Your task to perform on an android device: open app "Mercado Libre" (install if not already installed), go to login, and select forgot password Image 0: 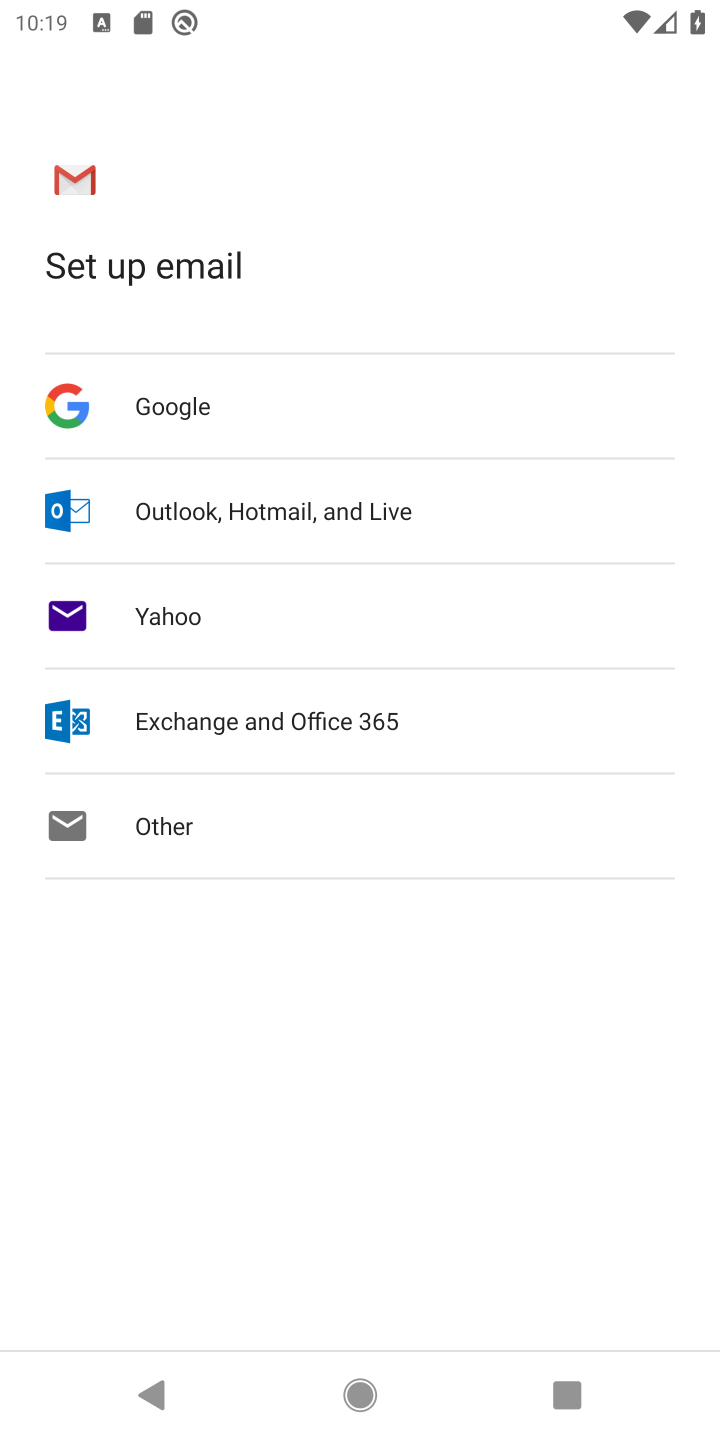
Step 0: press home button
Your task to perform on an android device: open app "Mercado Libre" (install if not already installed), go to login, and select forgot password Image 1: 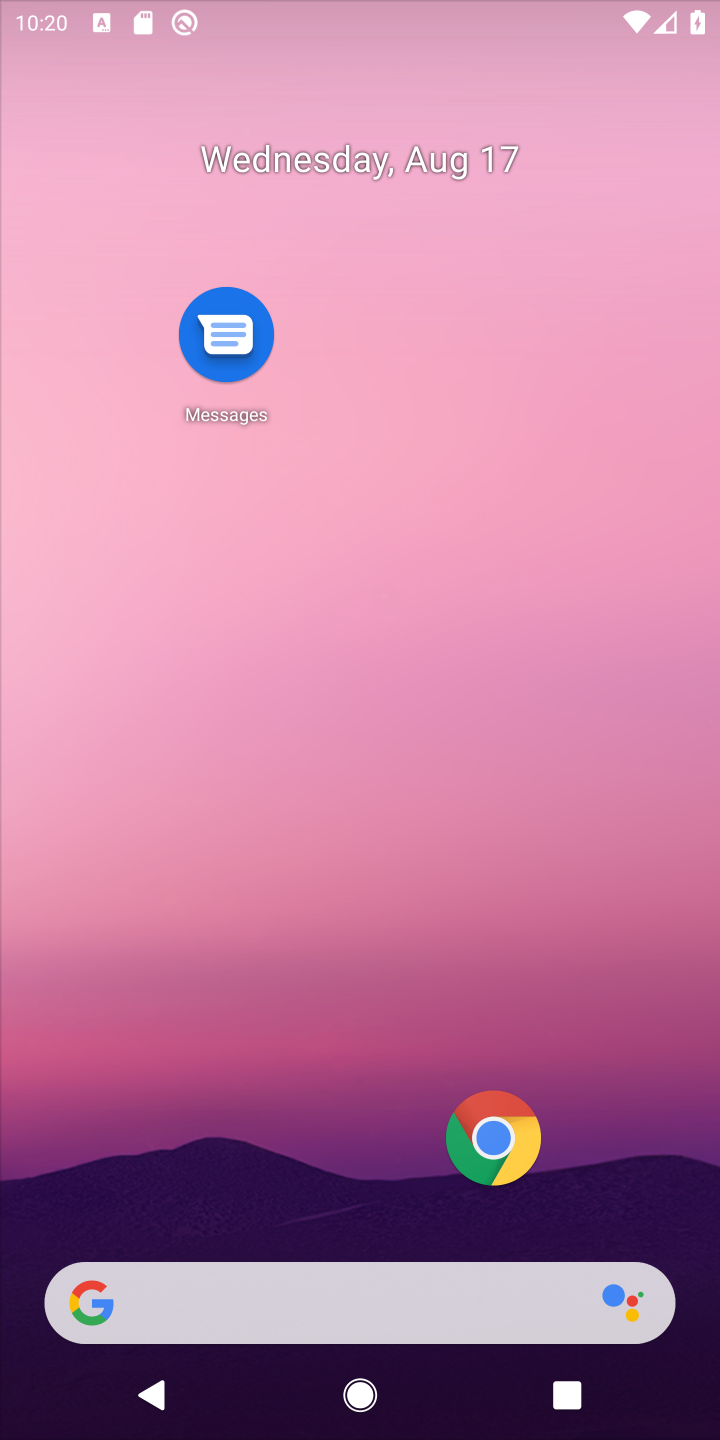
Step 1: drag from (284, 1275) to (300, 104)
Your task to perform on an android device: open app "Mercado Libre" (install if not already installed), go to login, and select forgot password Image 2: 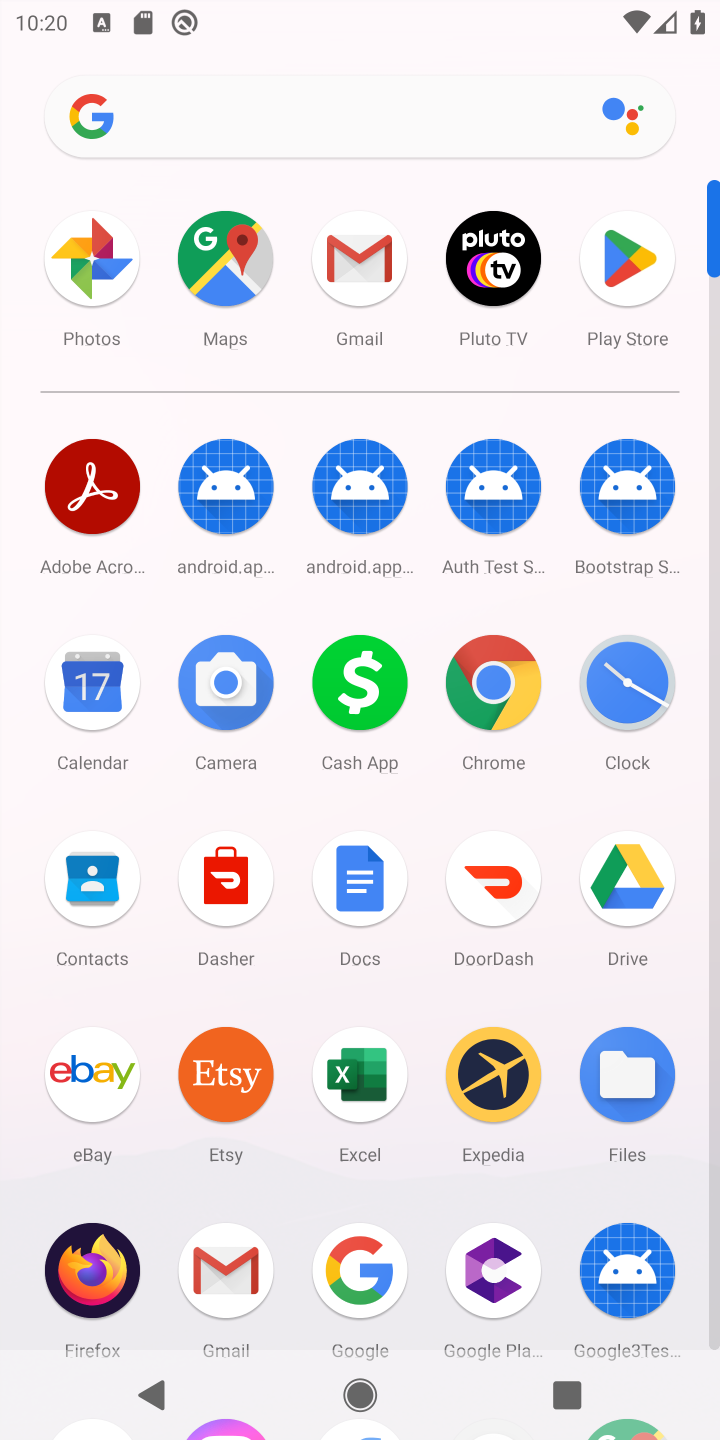
Step 2: click (607, 257)
Your task to perform on an android device: open app "Mercado Libre" (install if not already installed), go to login, and select forgot password Image 3: 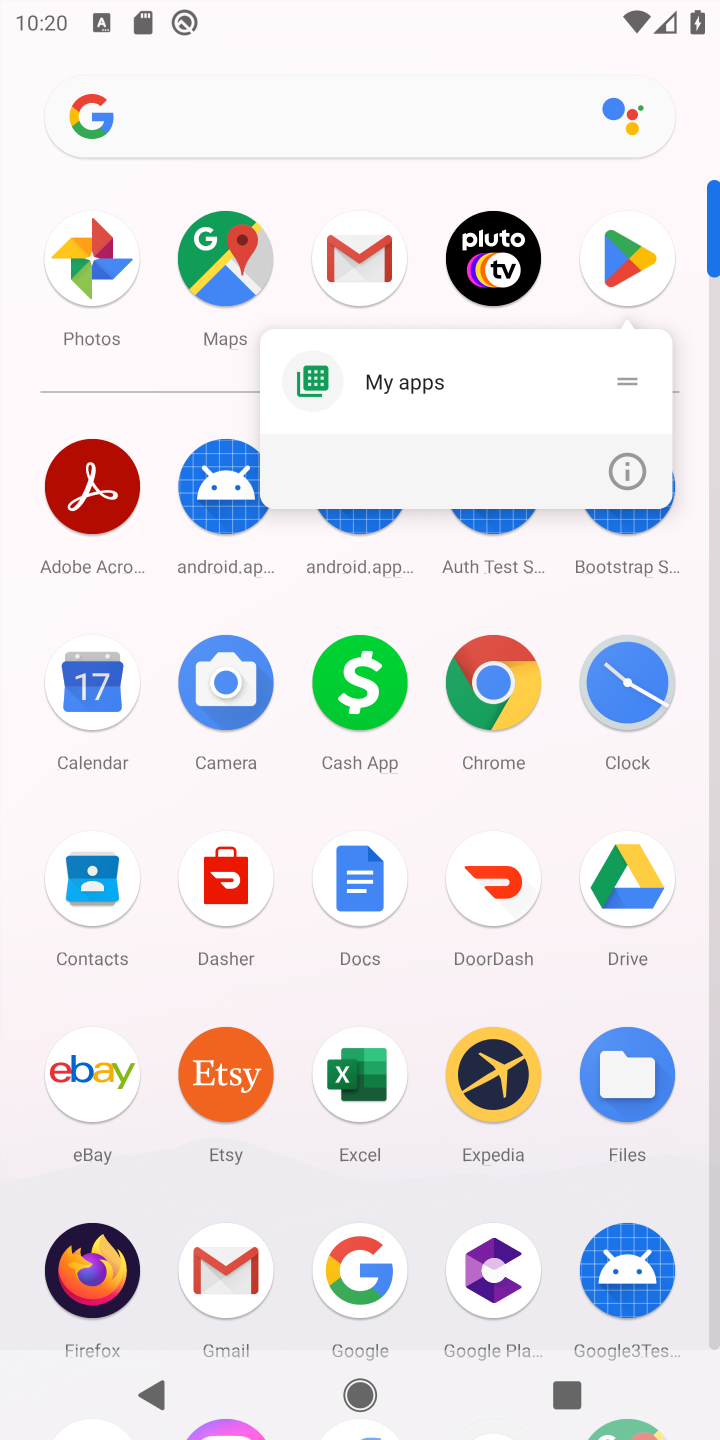
Step 3: click (636, 252)
Your task to perform on an android device: open app "Mercado Libre" (install if not already installed), go to login, and select forgot password Image 4: 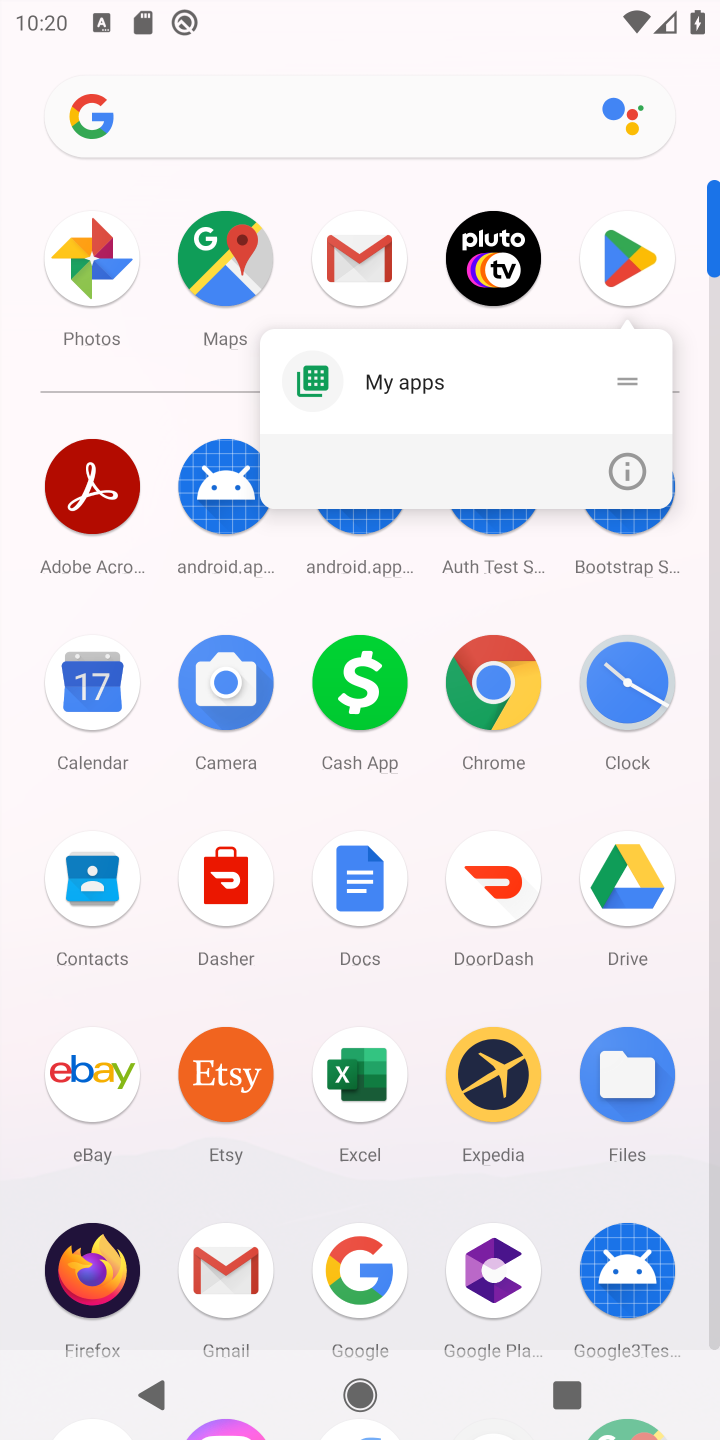
Step 4: click (636, 252)
Your task to perform on an android device: open app "Mercado Libre" (install if not already installed), go to login, and select forgot password Image 5: 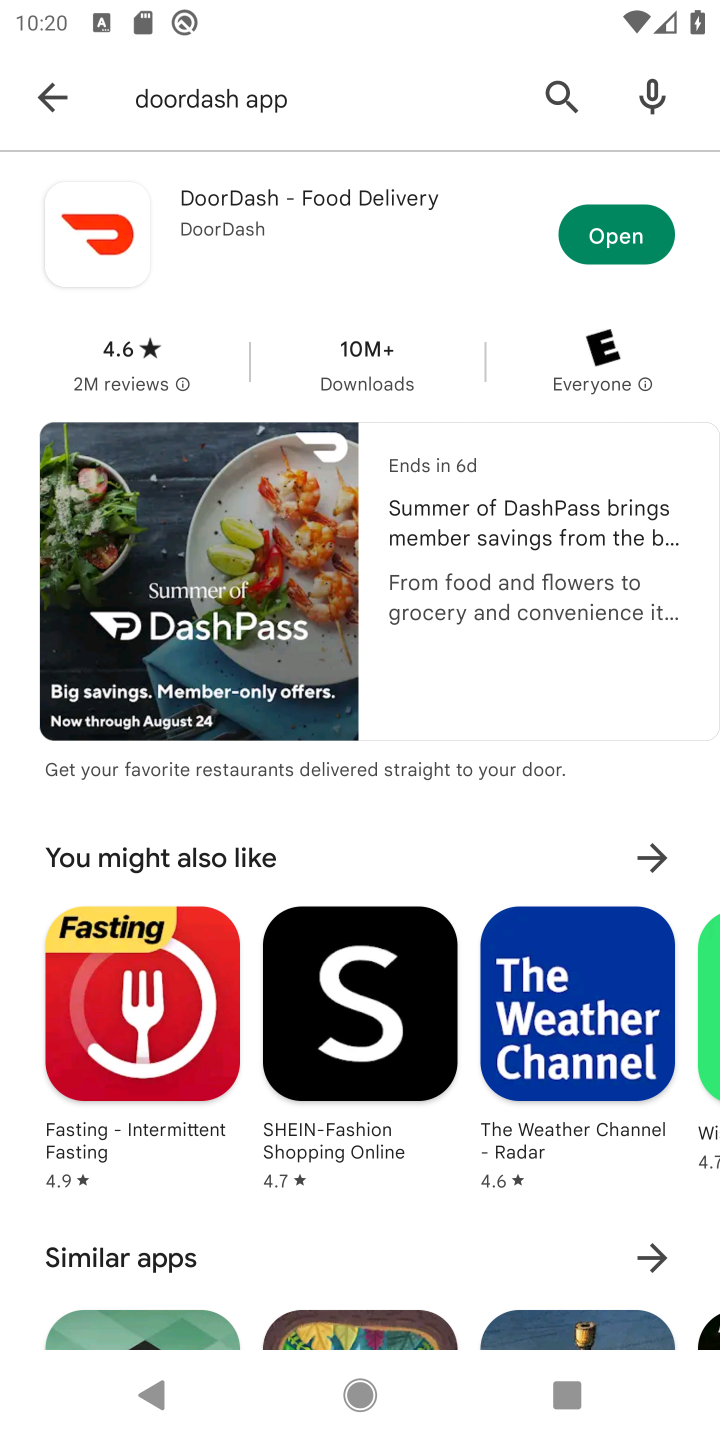
Step 5: click (30, 93)
Your task to perform on an android device: open app "Mercado Libre" (install if not already installed), go to login, and select forgot password Image 6: 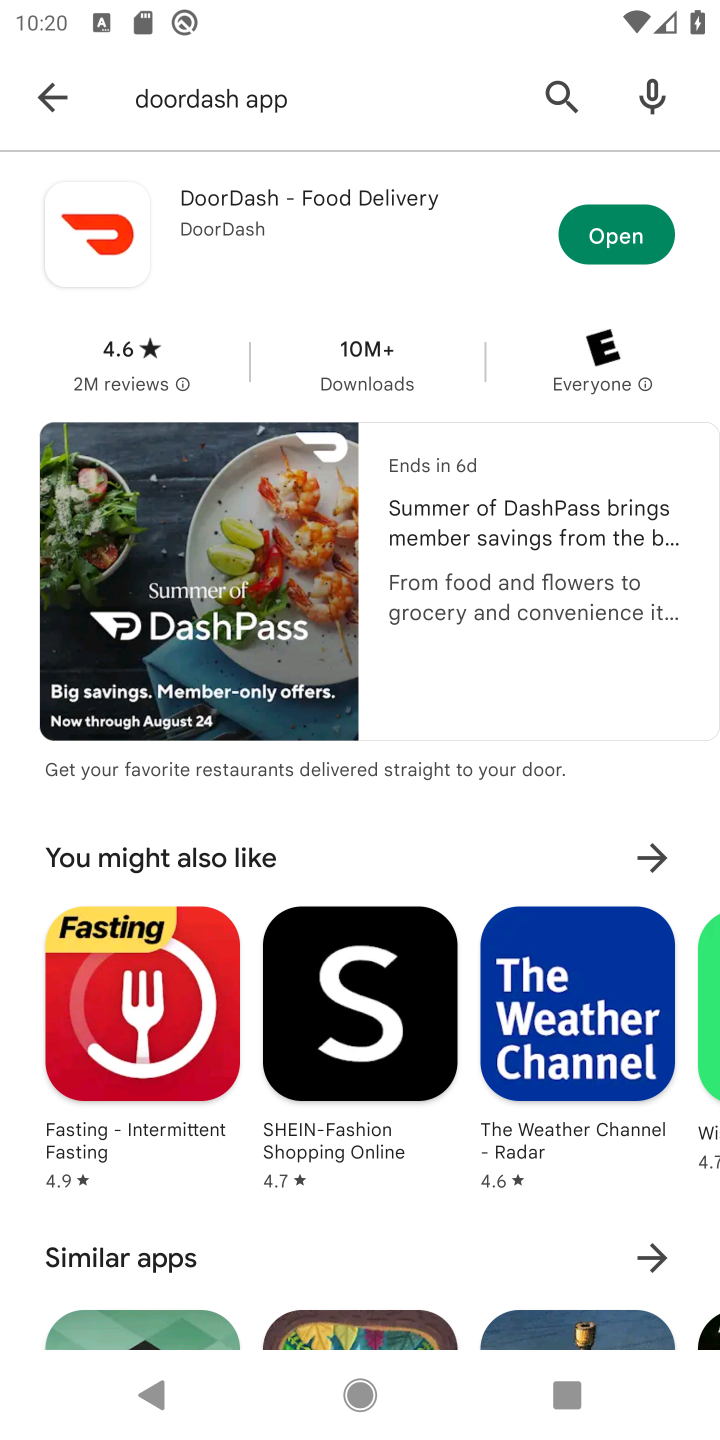
Step 6: click (78, 90)
Your task to perform on an android device: open app "Mercado Libre" (install if not already installed), go to login, and select forgot password Image 7: 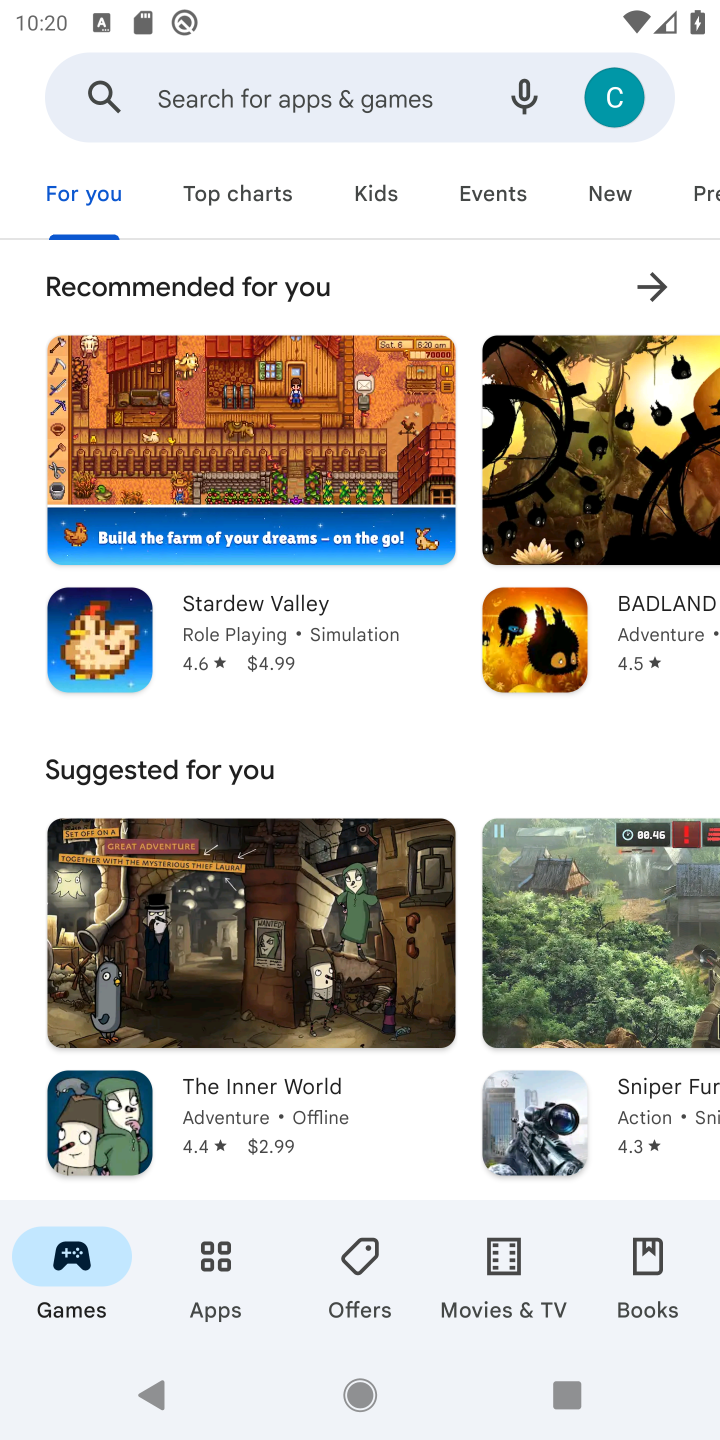
Step 7: click (332, 89)
Your task to perform on an android device: open app "Mercado Libre" (install if not already installed), go to login, and select forgot password Image 8: 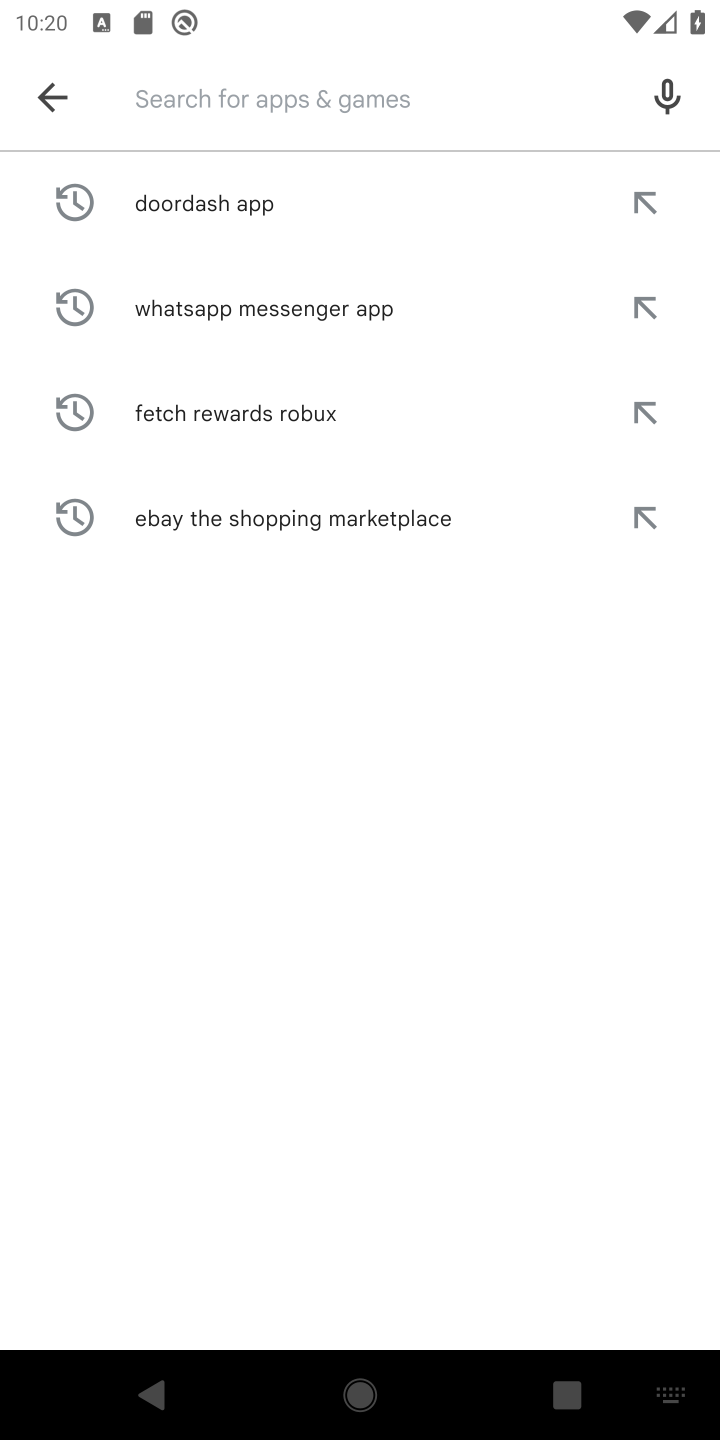
Step 8: type "Mercado Libre "
Your task to perform on an android device: open app "Mercado Libre" (install if not already installed), go to login, and select forgot password Image 9: 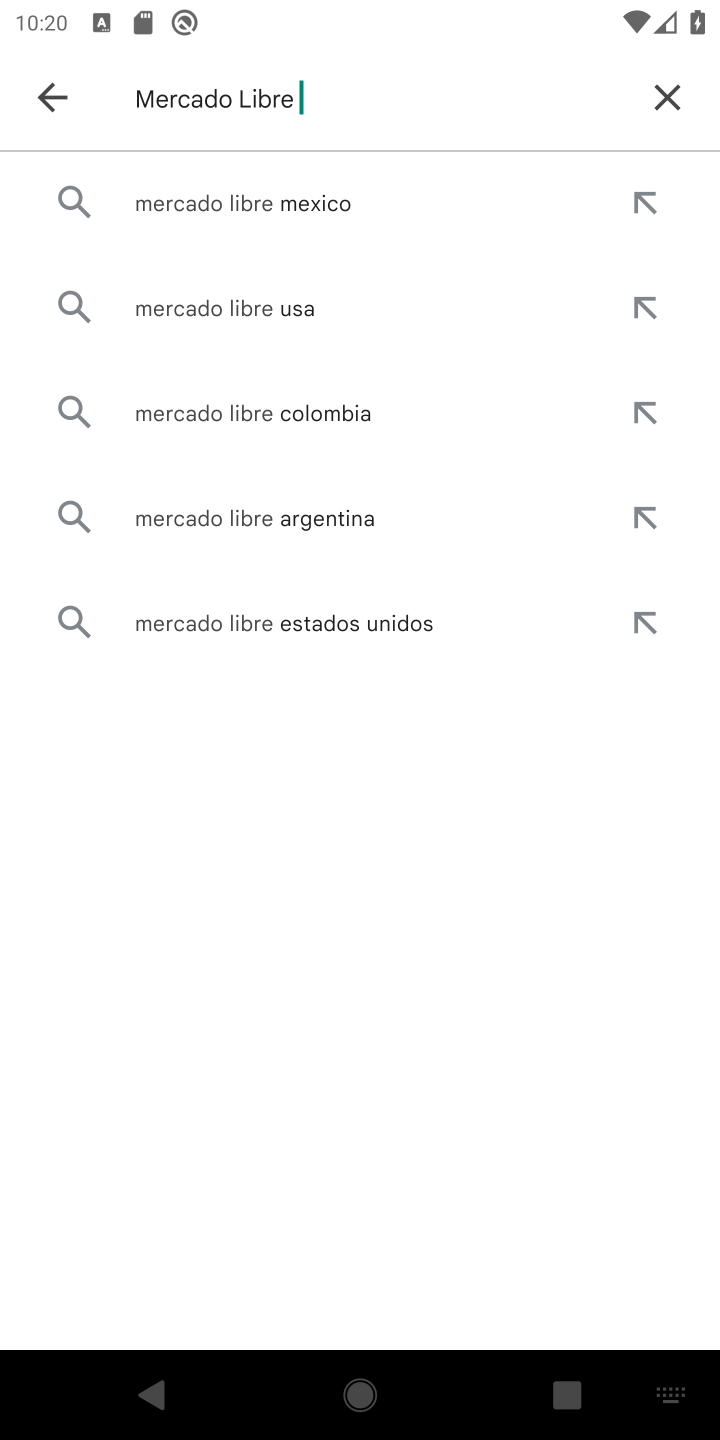
Step 9: click (249, 205)
Your task to perform on an android device: open app "Mercado Libre" (install if not already installed), go to login, and select forgot password Image 10: 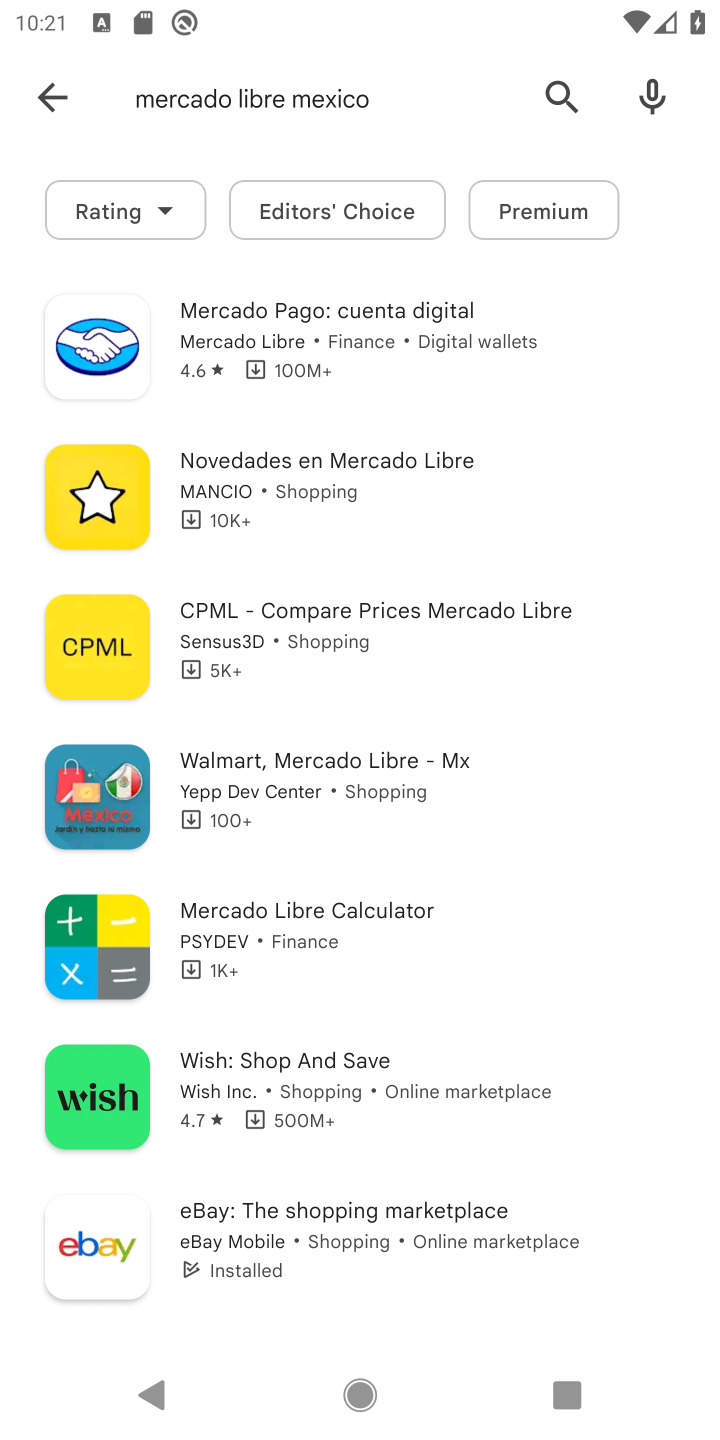
Step 10: click (42, 91)
Your task to perform on an android device: open app "Mercado Libre" (install if not already installed), go to login, and select forgot password Image 11: 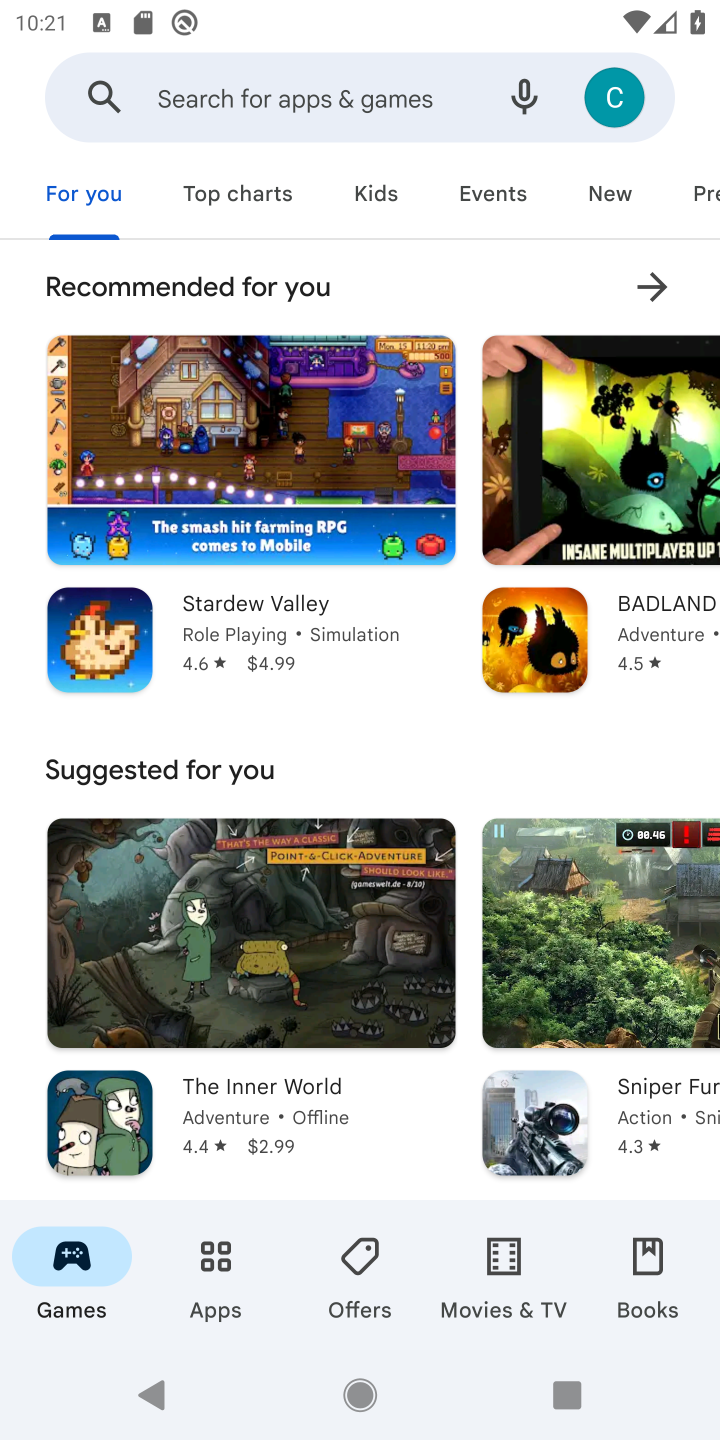
Step 11: click (249, 85)
Your task to perform on an android device: open app "Mercado Libre" (install if not already installed), go to login, and select forgot password Image 12: 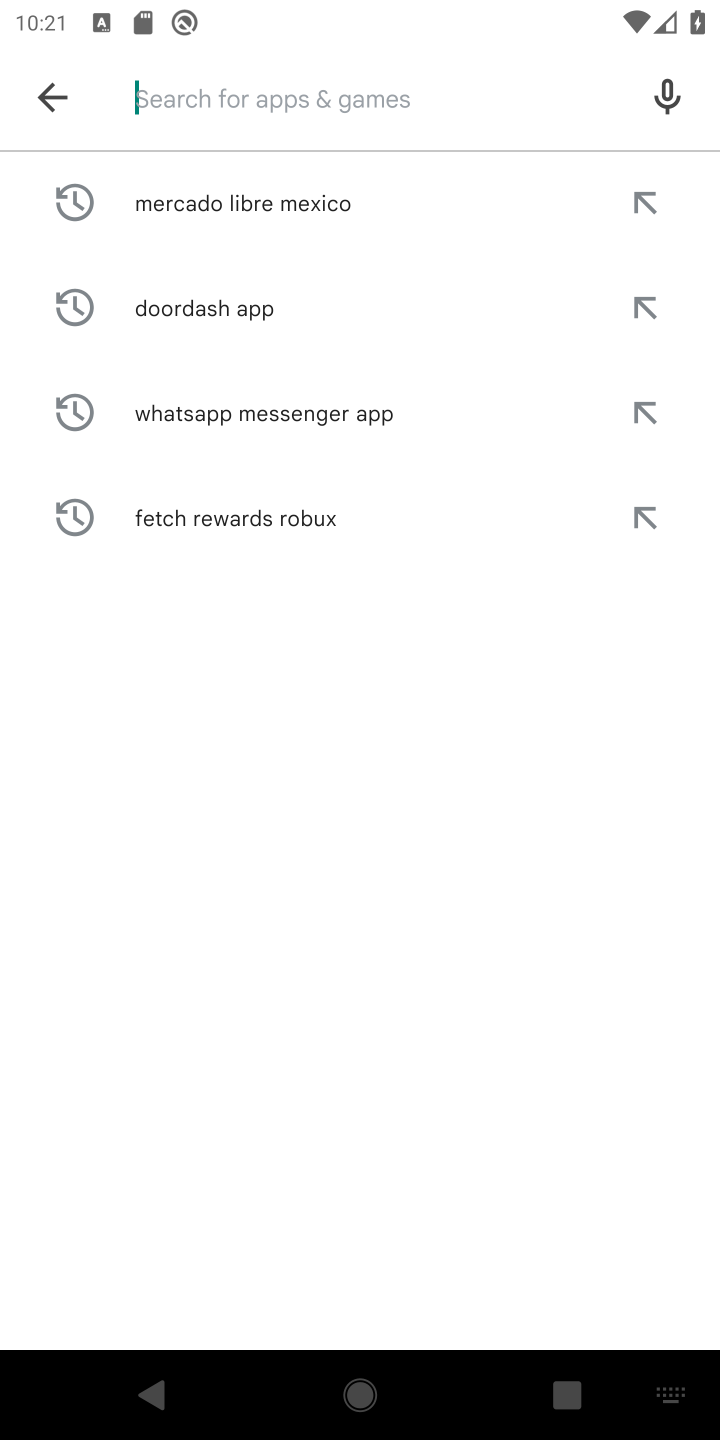
Step 12: type "mercado libre "
Your task to perform on an android device: open app "Mercado Libre" (install if not already installed), go to login, and select forgot password Image 13: 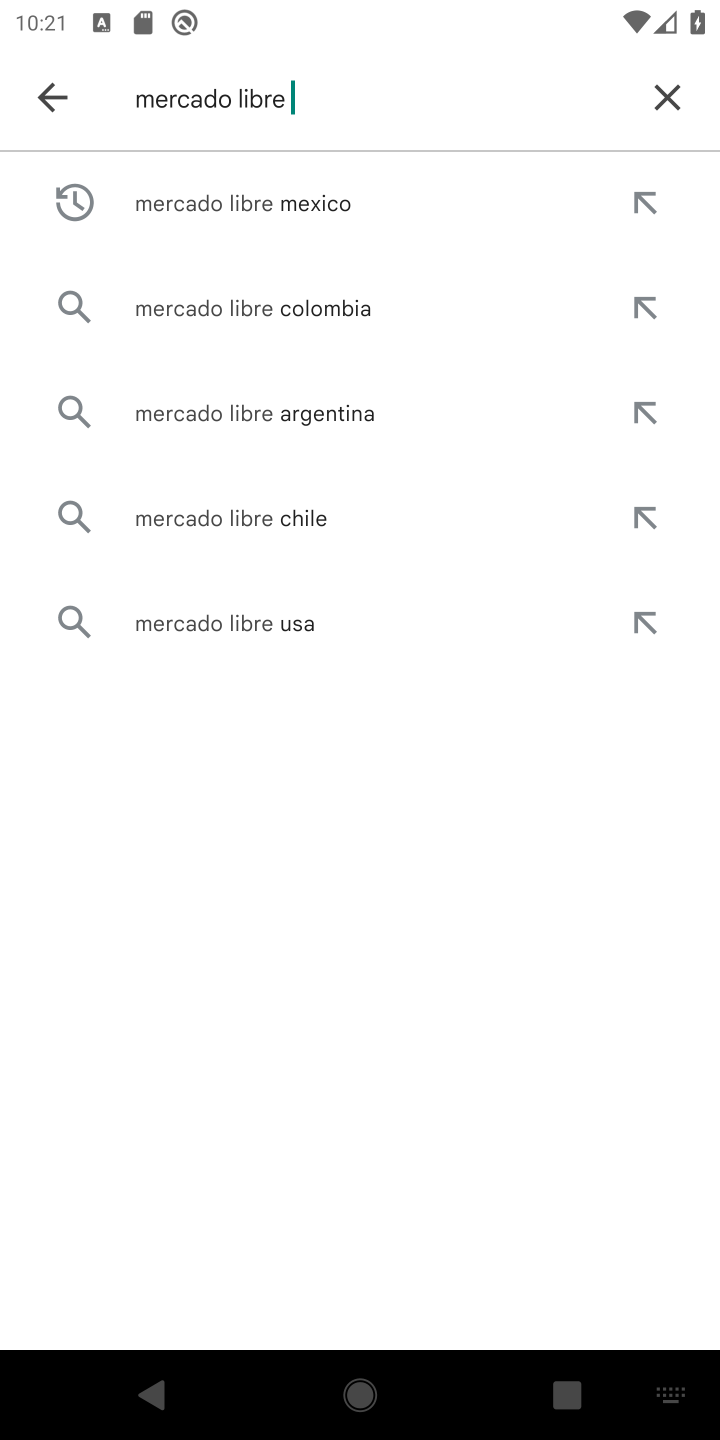
Step 13: click (303, 528)
Your task to perform on an android device: open app "Mercado Libre" (install if not already installed), go to login, and select forgot password Image 14: 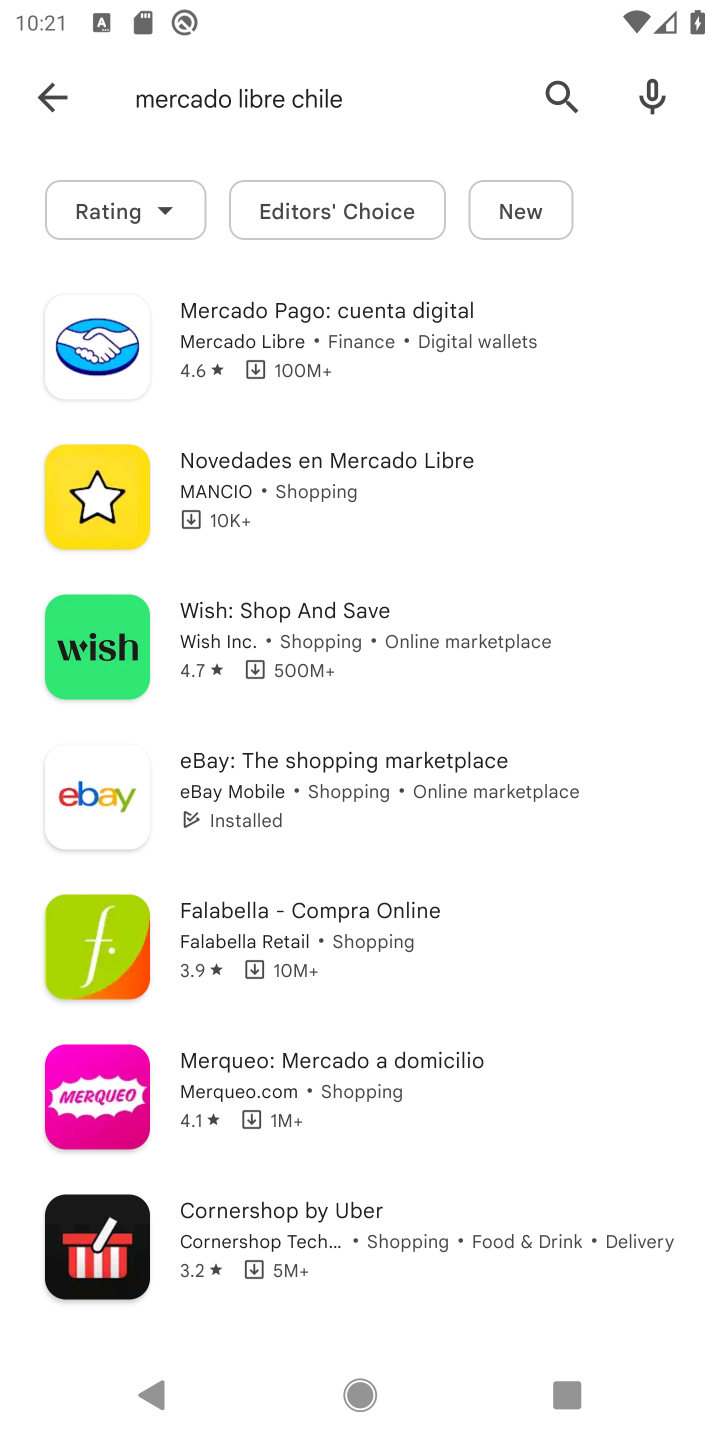
Step 14: task complete